Your task to perform on an android device: check android version Image 0: 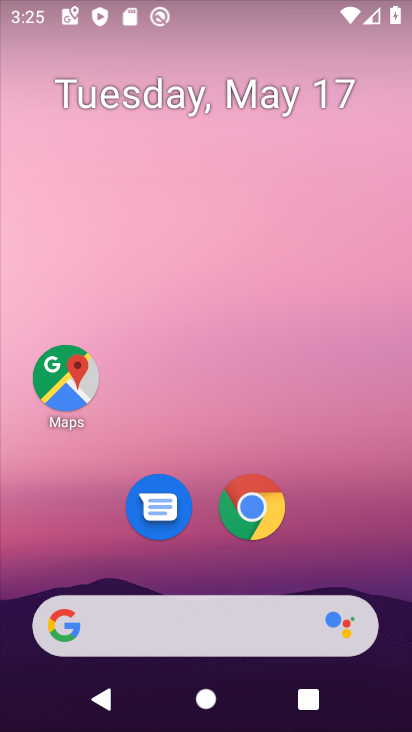
Step 0: drag from (314, 535) to (293, 56)
Your task to perform on an android device: check android version Image 1: 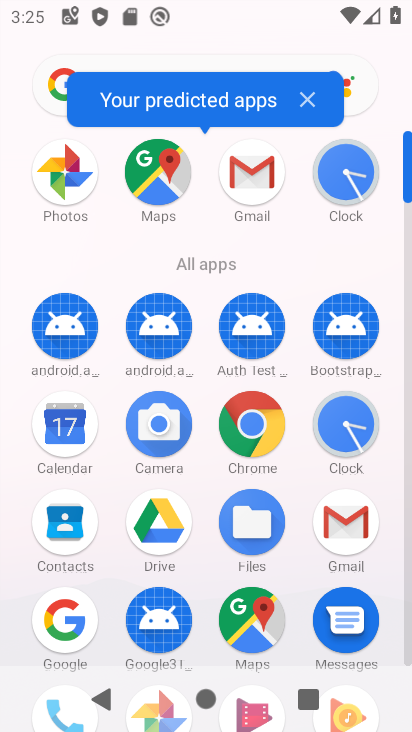
Step 1: drag from (212, 647) to (227, 310)
Your task to perform on an android device: check android version Image 2: 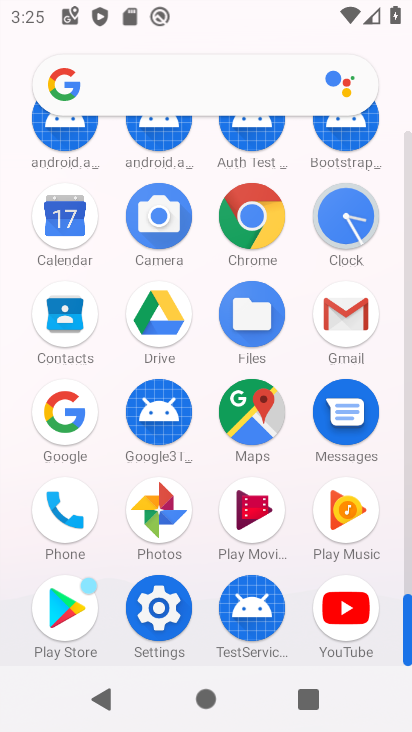
Step 2: click (162, 612)
Your task to perform on an android device: check android version Image 3: 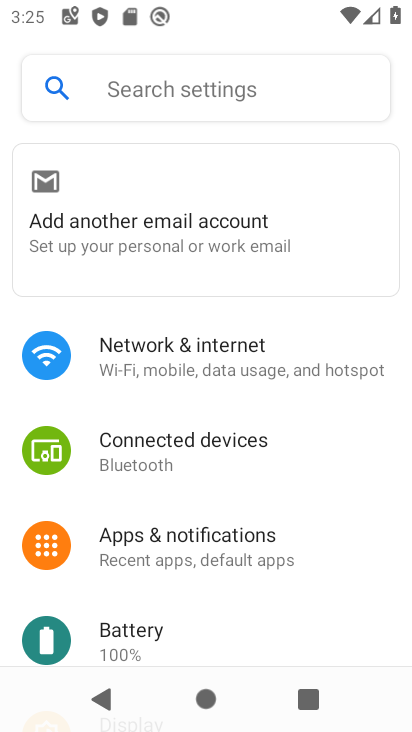
Step 3: drag from (271, 648) to (267, 179)
Your task to perform on an android device: check android version Image 4: 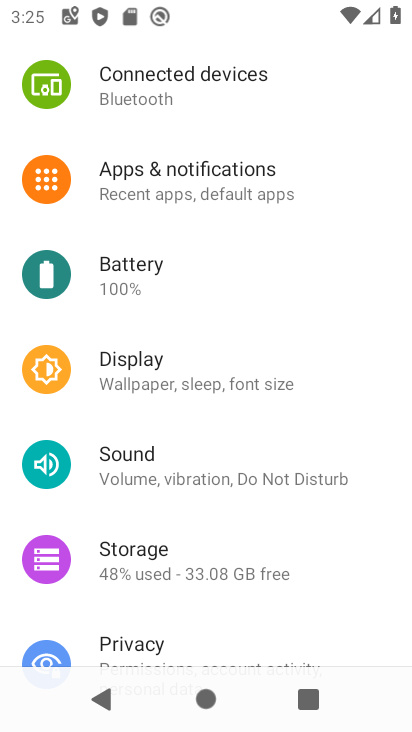
Step 4: drag from (192, 599) to (226, 136)
Your task to perform on an android device: check android version Image 5: 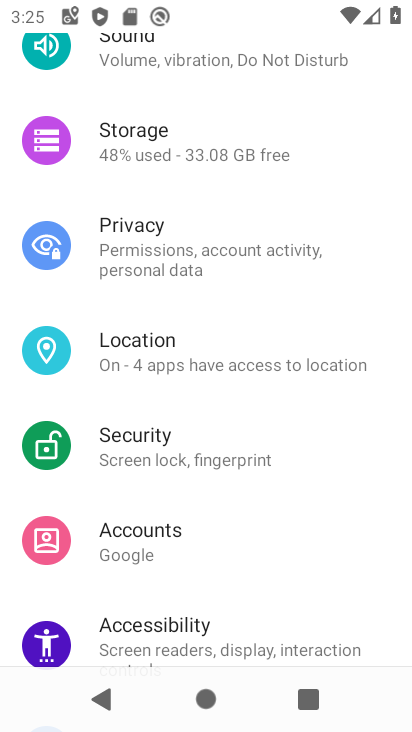
Step 5: drag from (214, 623) to (247, 203)
Your task to perform on an android device: check android version Image 6: 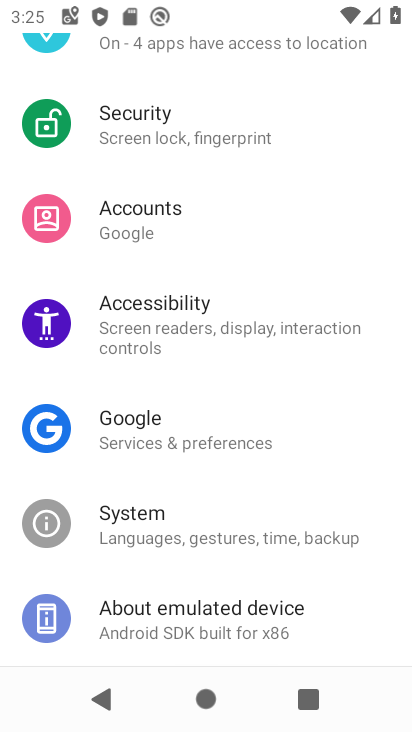
Step 6: drag from (169, 579) to (234, 210)
Your task to perform on an android device: check android version Image 7: 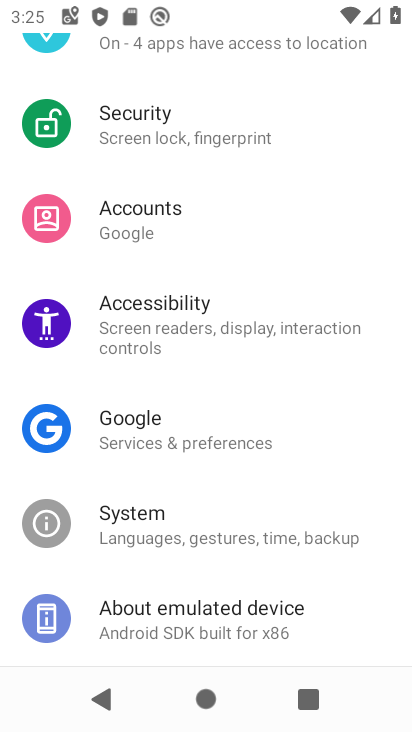
Step 7: click (167, 613)
Your task to perform on an android device: check android version Image 8: 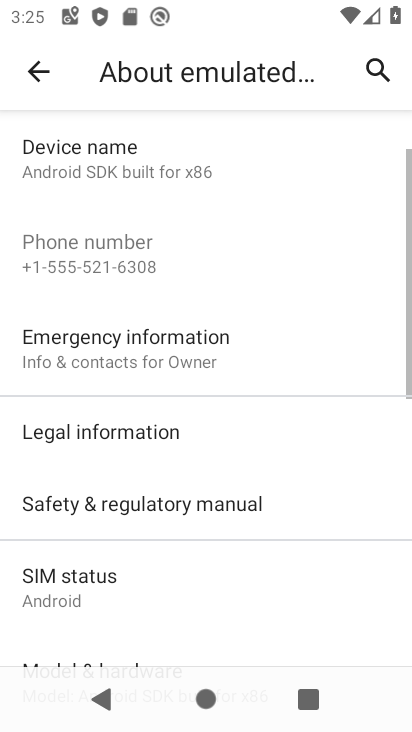
Step 8: drag from (175, 595) to (222, 251)
Your task to perform on an android device: check android version Image 9: 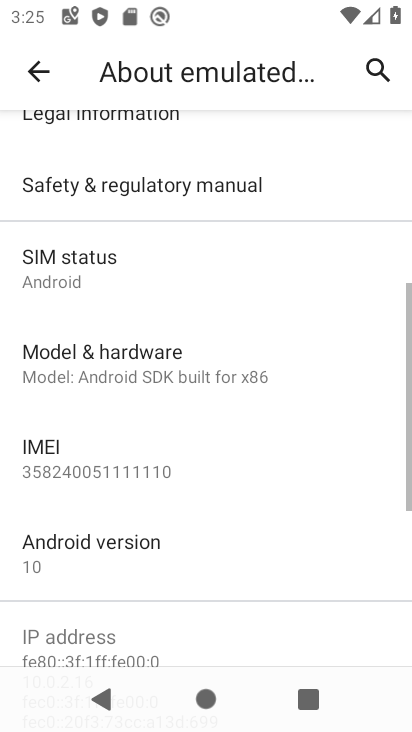
Step 9: click (104, 552)
Your task to perform on an android device: check android version Image 10: 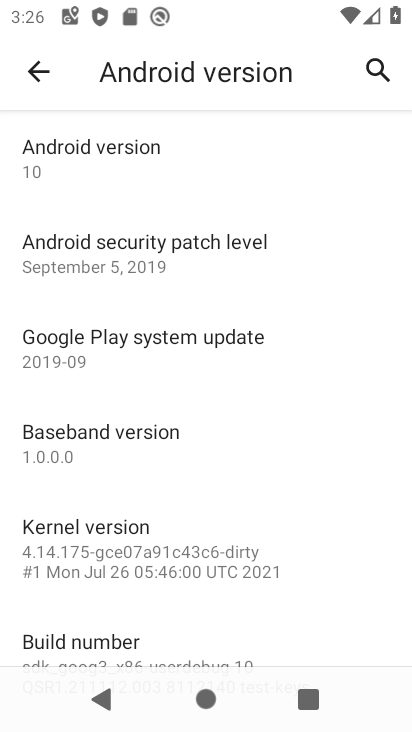
Step 10: click (178, 161)
Your task to perform on an android device: check android version Image 11: 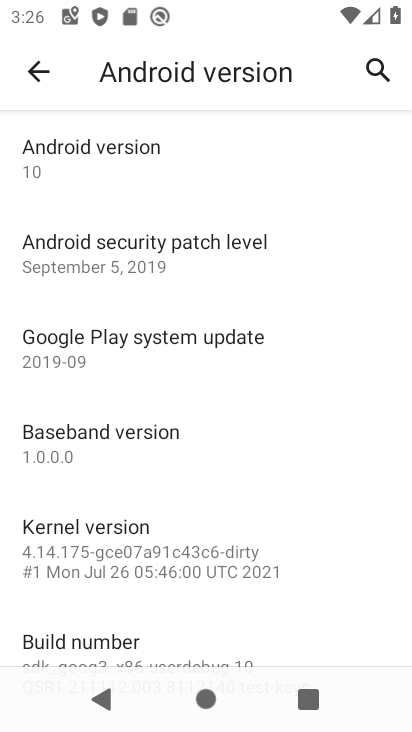
Step 11: task complete